Your task to perform on an android device: turn off location history Image 0: 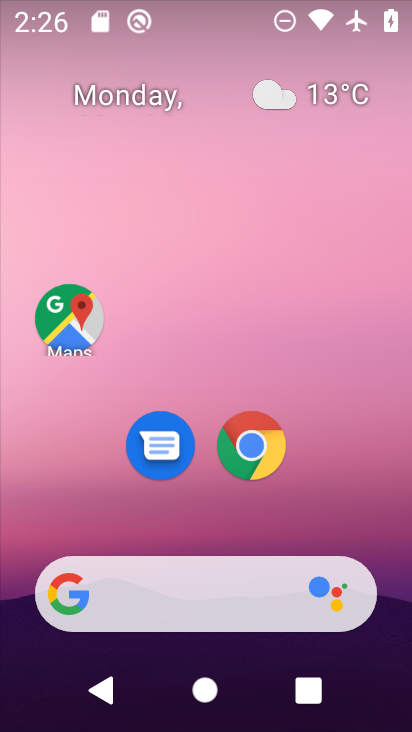
Step 0: drag from (382, 612) to (252, 127)
Your task to perform on an android device: turn off location history Image 1: 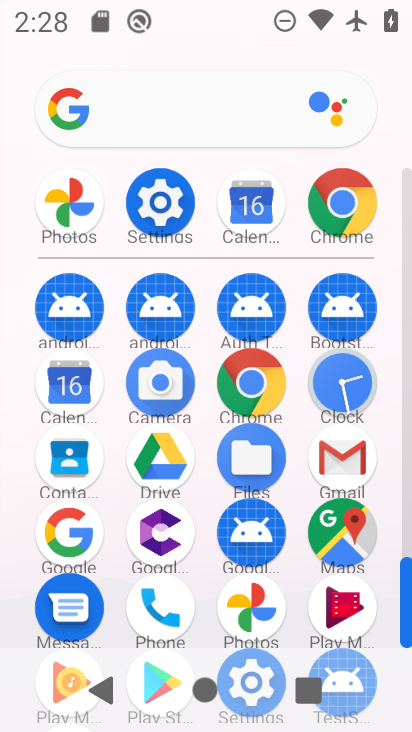
Step 1: drag from (292, 625) to (291, 440)
Your task to perform on an android device: turn off location history Image 2: 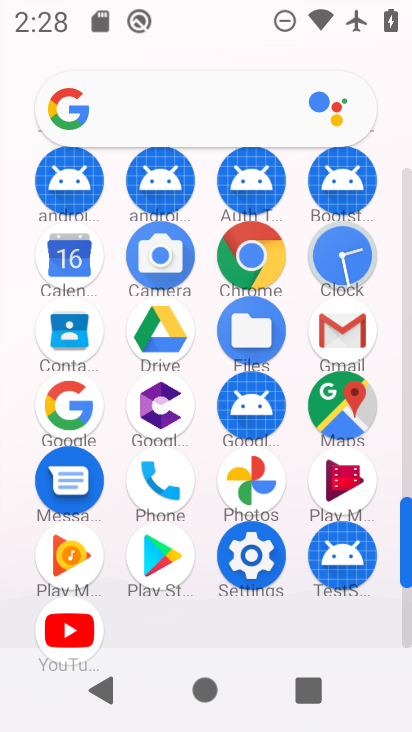
Step 2: click (246, 540)
Your task to perform on an android device: turn off location history Image 3: 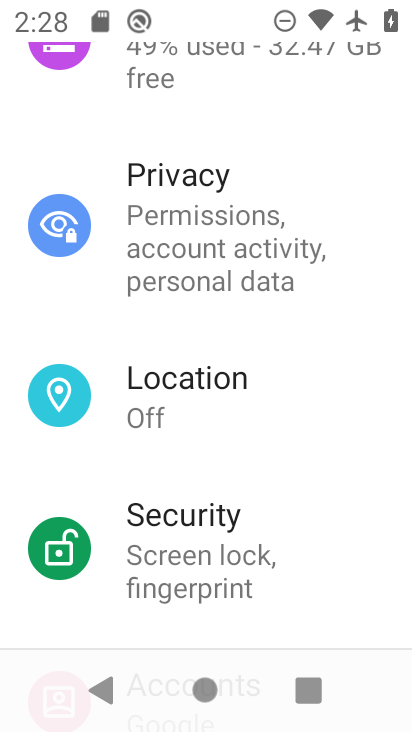
Step 3: click (208, 418)
Your task to perform on an android device: turn off location history Image 4: 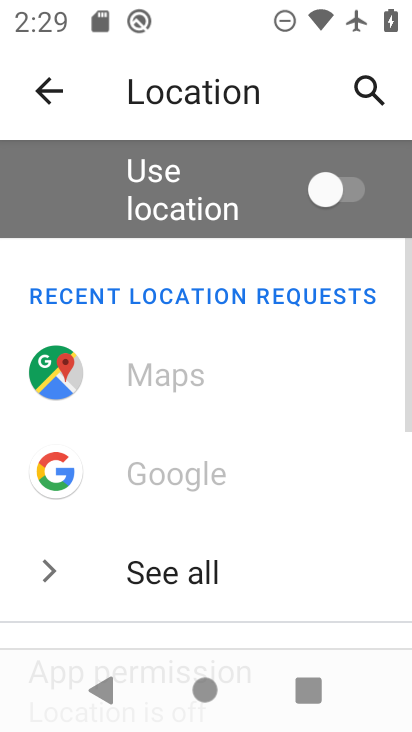
Step 4: drag from (162, 630) to (220, 183)
Your task to perform on an android device: turn off location history Image 5: 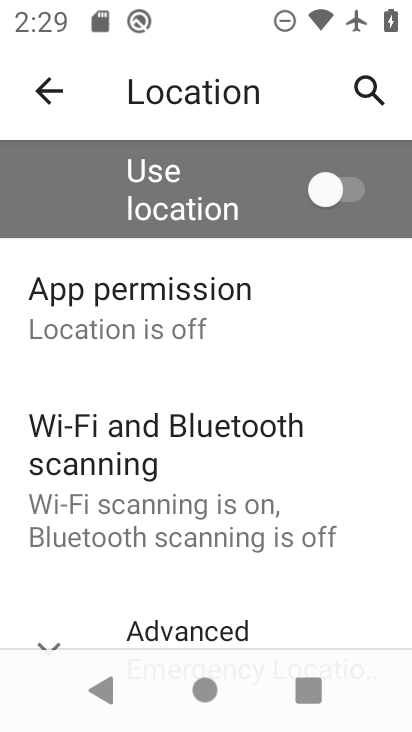
Step 5: drag from (193, 559) to (240, 326)
Your task to perform on an android device: turn off location history Image 6: 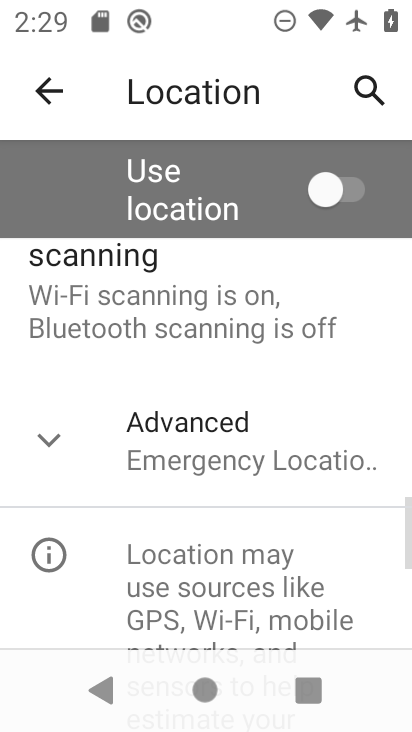
Step 6: click (209, 446)
Your task to perform on an android device: turn off location history Image 7: 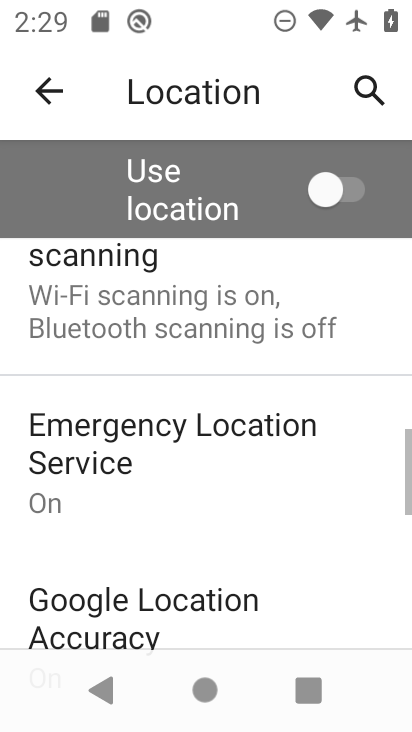
Step 7: drag from (188, 578) to (250, 234)
Your task to perform on an android device: turn off location history Image 8: 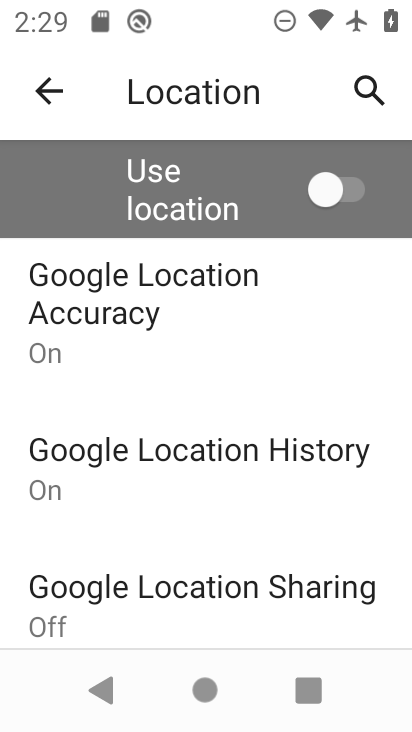
Step 8: click (212, 474)
Your task to perform on an android device: turn off location history Image 9: 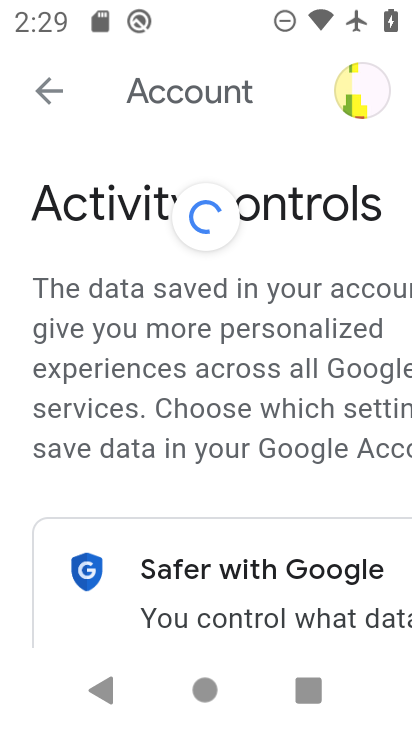
Step 9: task complete